Your task to perform on an android device: change text size in settings app Image 0: 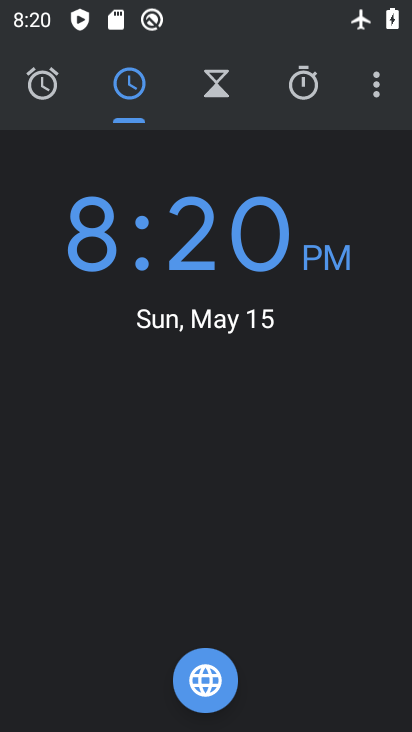
Step 0: press home button
Your task to perform on an android device: change text size in settings app Image 1: 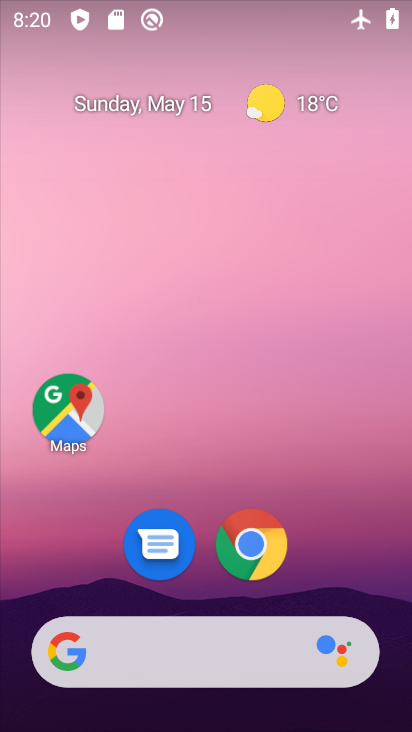
Step 1: drag from (355, 560) to (313, 74)
Your task to perform on an android device: change text size in settings app Image 2: 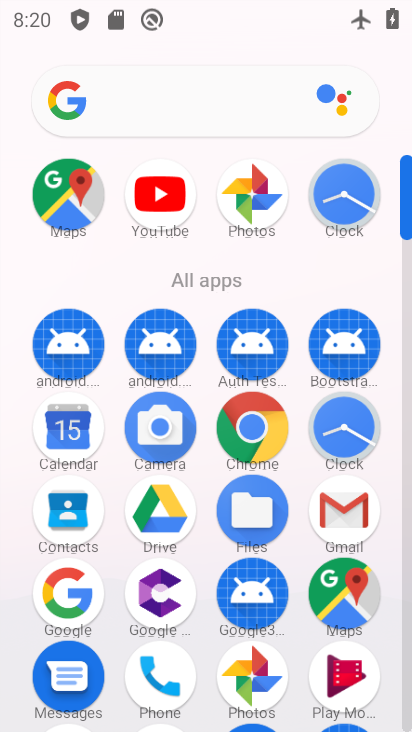
Step 2: drag from (300, 523) to (349, 192)
Your task to perform on an android device: change text size in settings app Image 3: 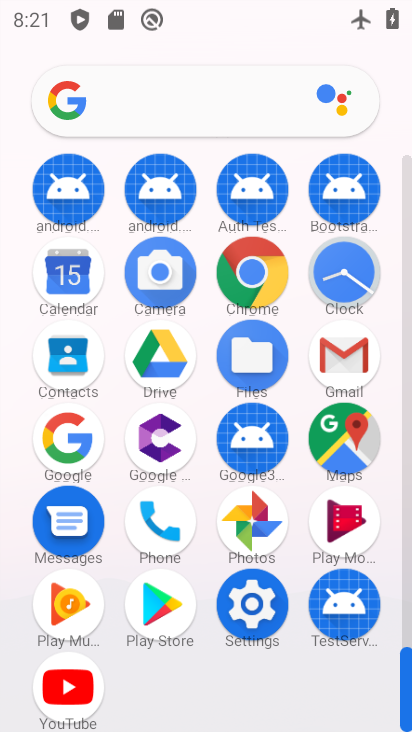
Step 3: click (248, 601)
Your task to perform on an android device: change text size in settings app Image 4: 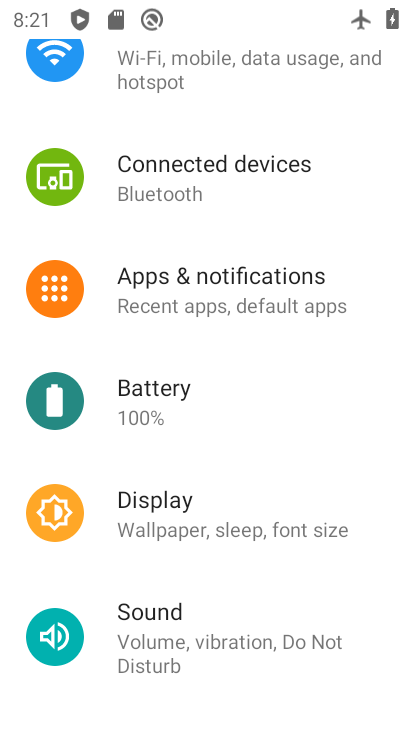
Step 4: drag from (329, 642) to (367, 345)
Your task to perform on an android device: change text size in settings app Image 5: 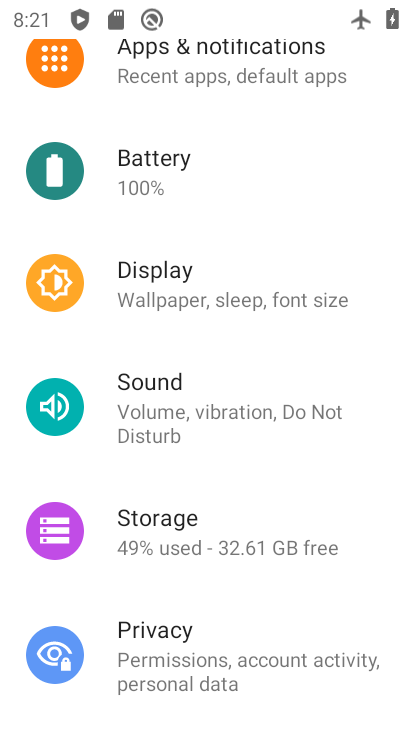
Step 5: drag from (279, 613) to (295, 722)
Your task to perform on an android device: change text size in settings app Image 6: 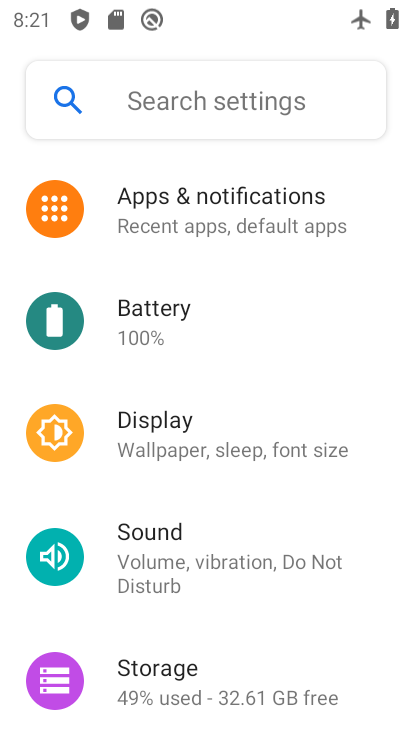
Step 6: click (229, 459)
Your task to perform on an android device: change text size in settings app Image 7: 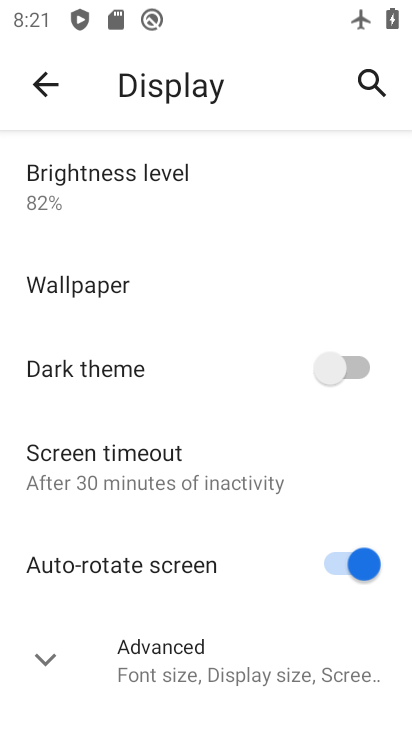
Step 7: click (197, 659)
Your task to perform on an android device: change text size in settings app Image 8: 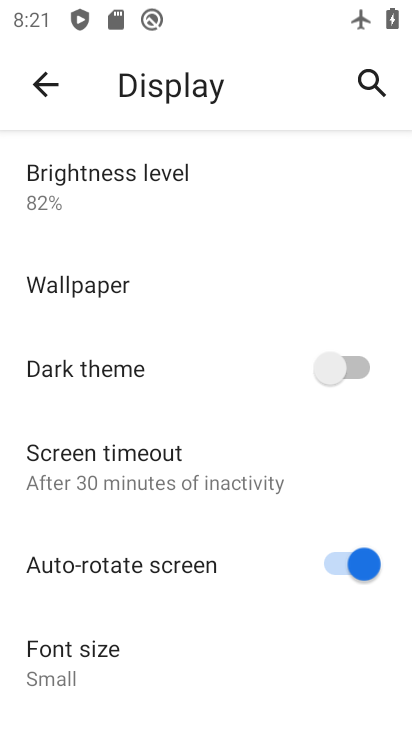
Step 8: click (85, 665)
Your task to perform on an android device: change text size in settings app Image 9: 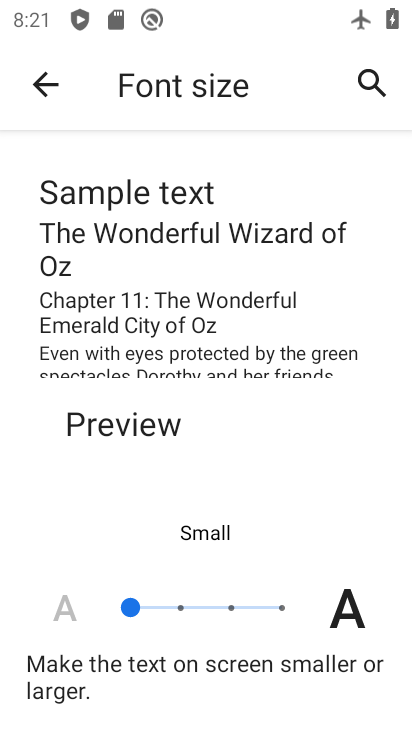
Step 9: click (153, 599)
Your task to perform on an android device: change text size in settings app Image 10: 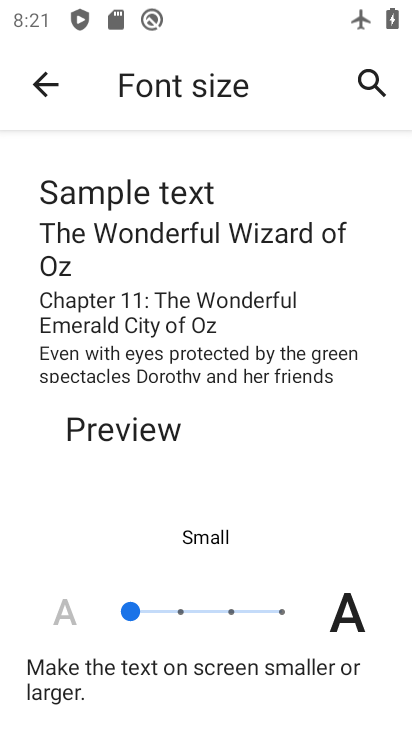
Step 10: click (172, 610)
Your task to perform on an android device: change text size in settings app Image 11: 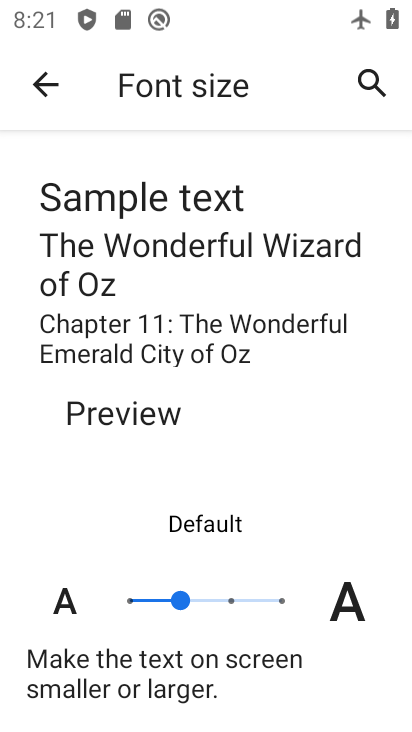
Step 11: task complete